Your task to perform on an android device: clear history in the chrome app Image 0: 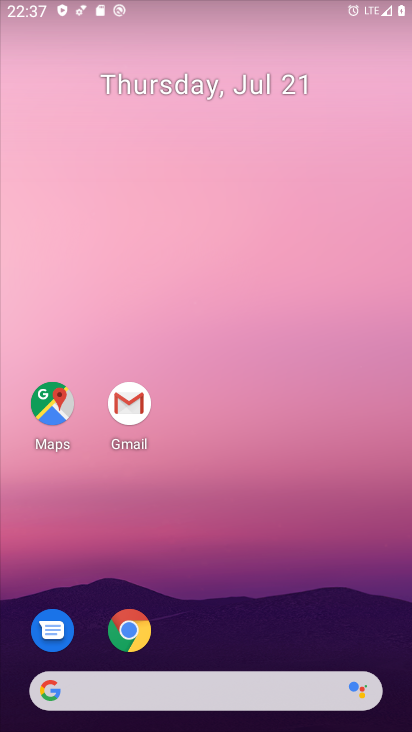
Step 0: drag from (244, 462) to (214, 184)
Your task to perform on an android device: clear history in the chrome app Image 1: 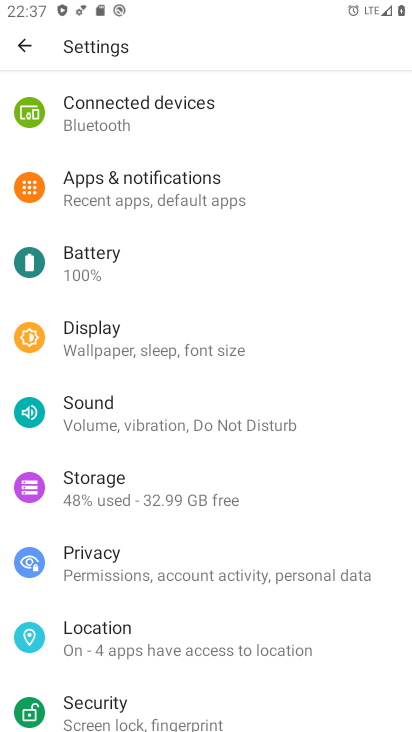
Step 1: click (32, 60)
Your task to perform on an android device: clear history in the chrome app Image 2: 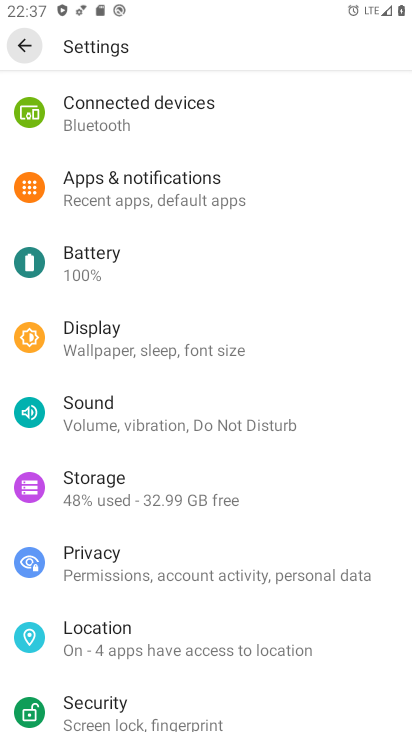
Step 2: click (26, 52)
Your task to perform on an android device: clear history in the chrome app Image 3: 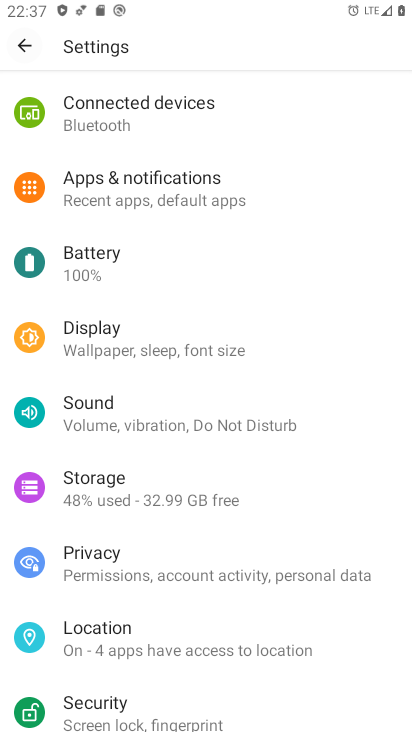
Step 3: click (26, 52)
Your task to perform on an android device: clear history in the chrome app Image 4: 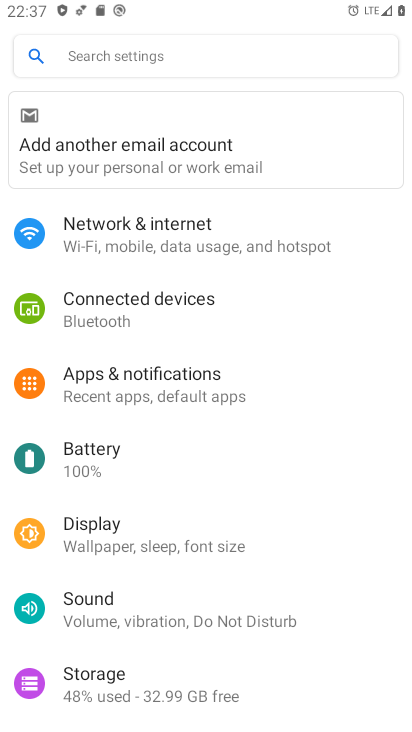
Step 4: press back button
Your task to perform on an android device: clear history in the chrome app Image 5: 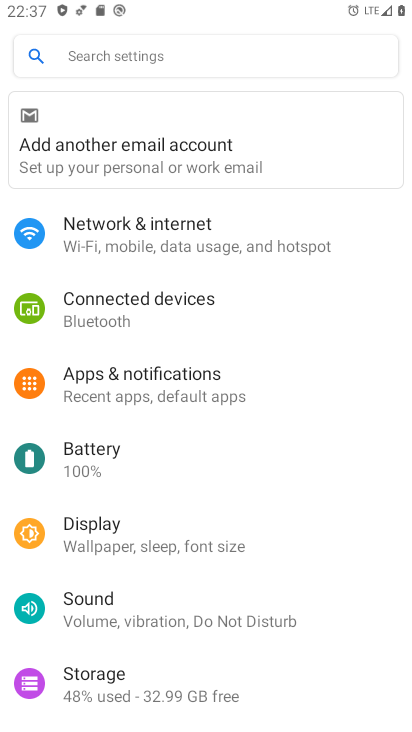
Step 5: press back button
Your task to perform on an android device: clear history in the chrome app Image 6: 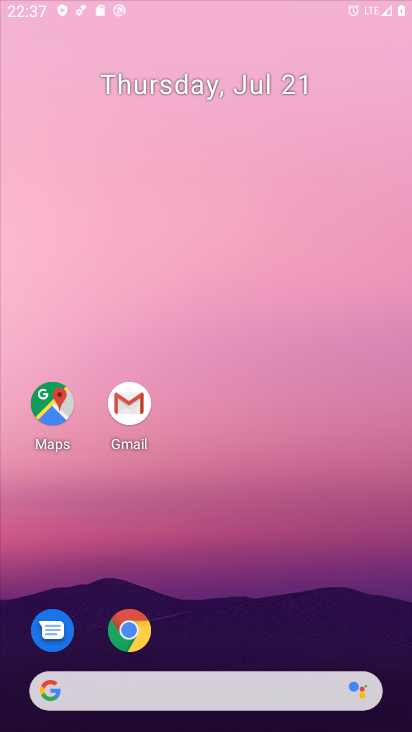
Step 6: press back button
Your task to perform on an android device: clear history in the chrome app Image 7: 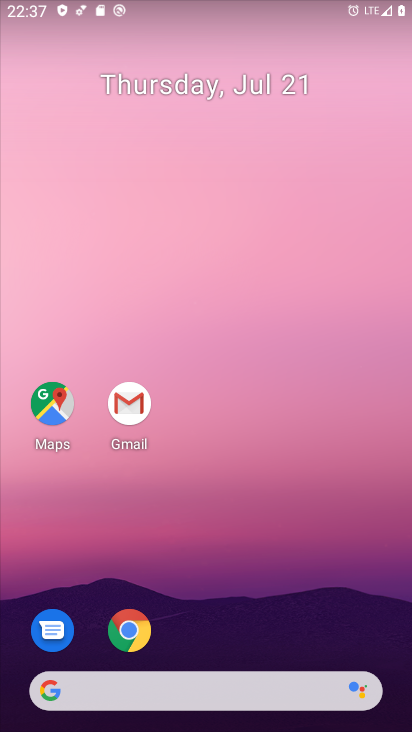
Step 7: drag from (209, 560) to (183, 37)
Your task to perform on an android device: clear history in the chrome app Image 8: 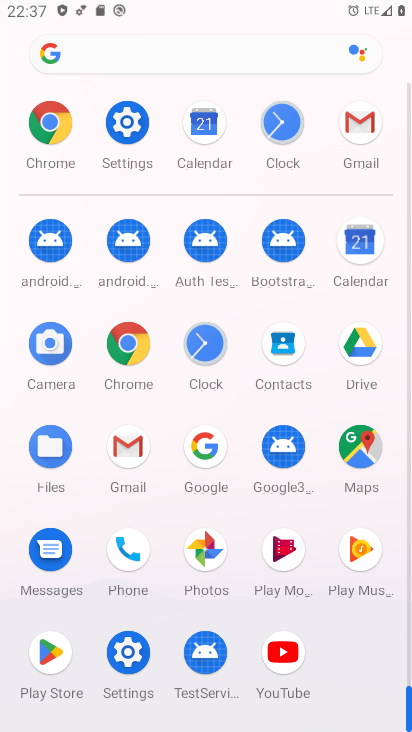
Step 8: drag from (236, 532) to (233, 56)
Your task to perform on an android device: clear history in the chrome app Image 9: 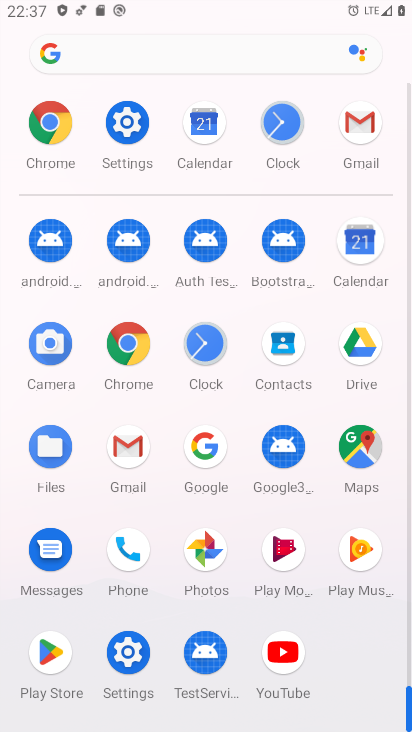
Step 9: click (54, 129)
Your task to perform on an android device: clear history in the chrome app Image 10: 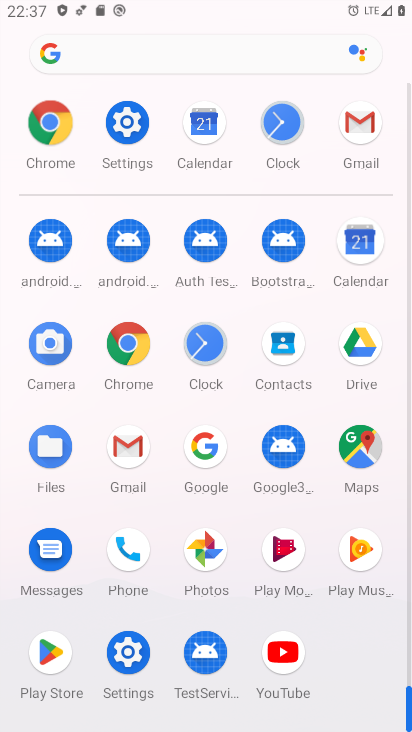
Step 10: click (53, 126)
Your task to perform on an android device: clear history in the chrome app Image 11: 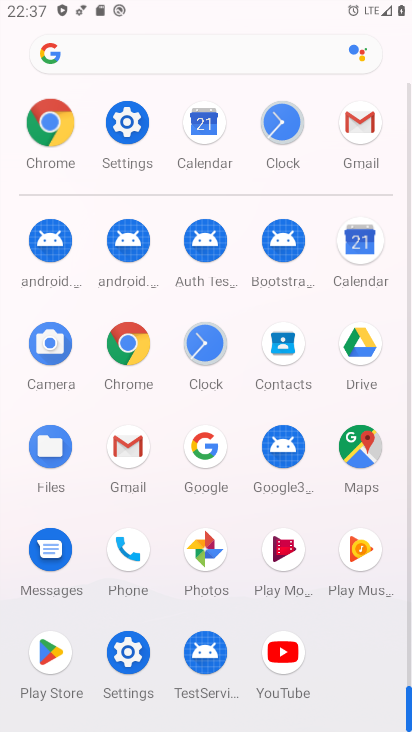
Step 11: click (49, 130)
Your task to perform on an android device: clear history in the chrome app Image 12: 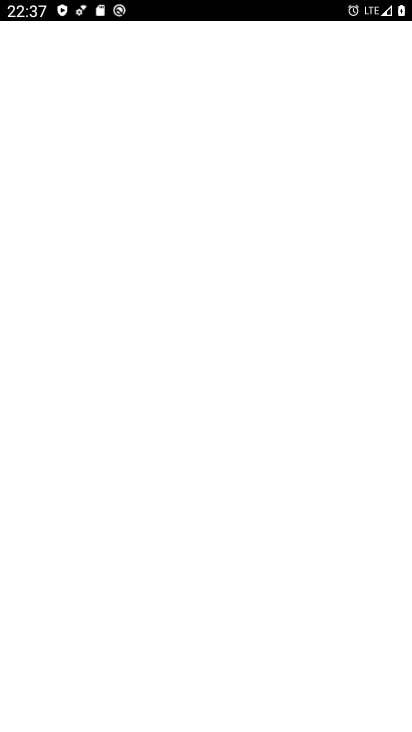
Step 12: click (46, 134)
Your task to perform on an android device: clear history in the chrome app Image 13: 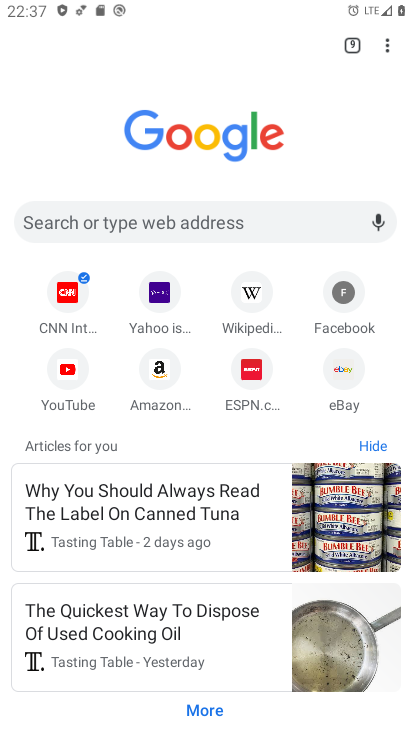
Step 13: drag from (388, 49) to (202, 257)
Your task to perform on an android device: clear history in the chrome app Image 14: 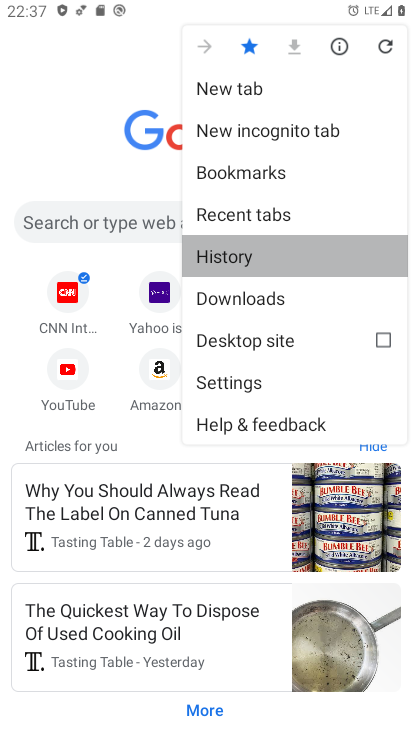
Step 14: click (214, 243)
Your task to perform on an android device: clear history in the chrome app Image 15: 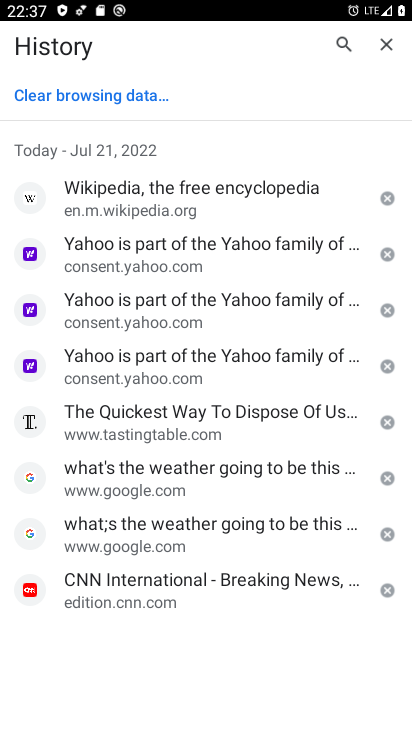
Step 15: click (129, 105)
Your task to perform on an android device: clear history in the chrome app Image 16: 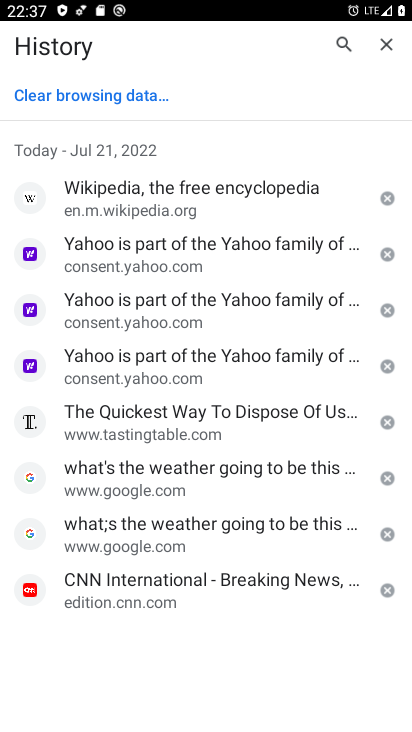
Step 16: click (119, 97)
Your task to perform on an android device: clear history in the chrome app Image 17: 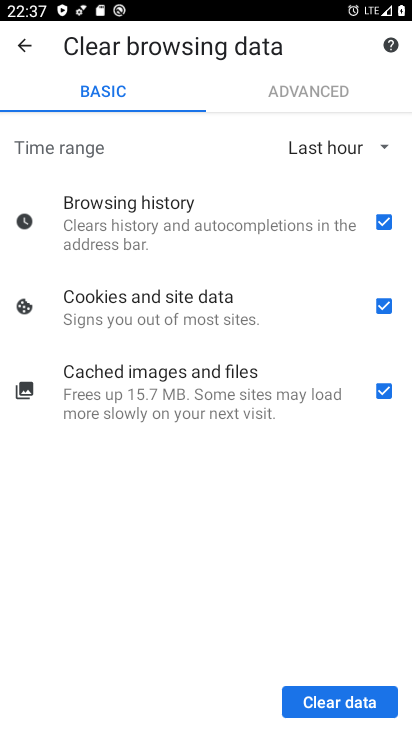
Step 17: click (332, 709)
Your task to perform on an android device: clear history in the chrome app Image 18: 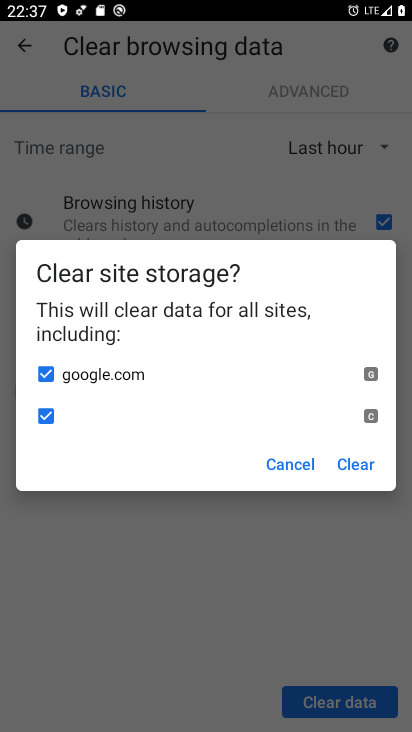
Step 18: click (371, 460)
Your task to perform on an android device: clear history in the chrome app Image 19: 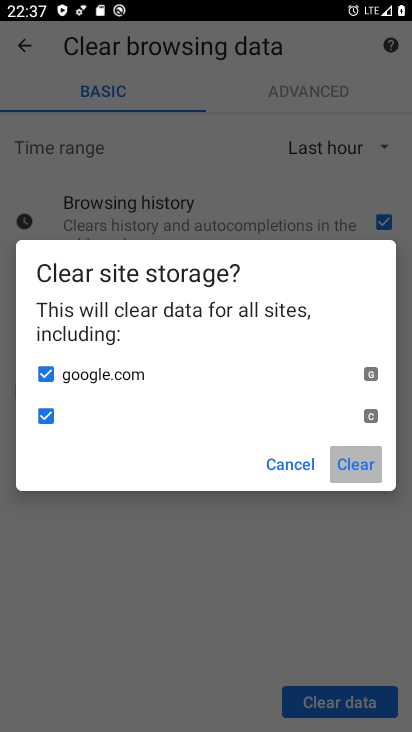
Step 19: click (348, 474)
Your task to perform on an android device: clear history in the chrome app Image 20: 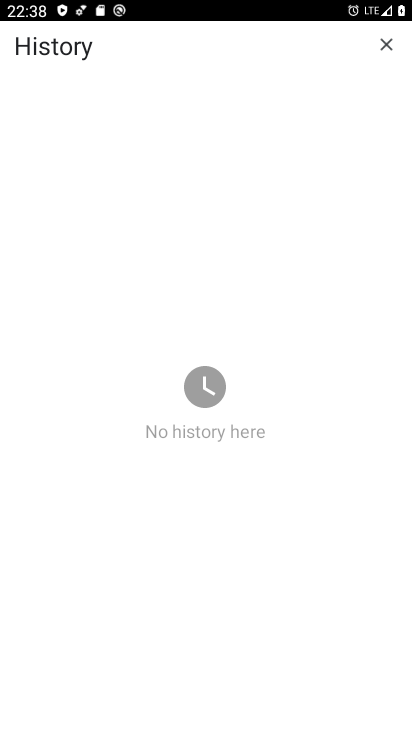
Step 20: task complete